Your task to perform on an android device: Open Google Image 0: 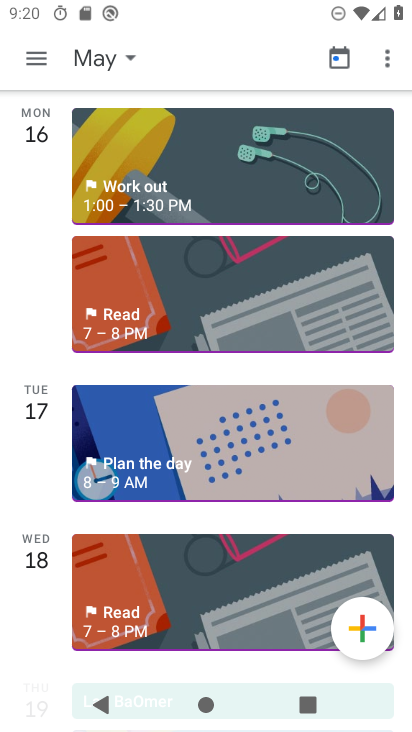
Step 0: press home button
Your task to perform on an android device: Open Google Image 1: 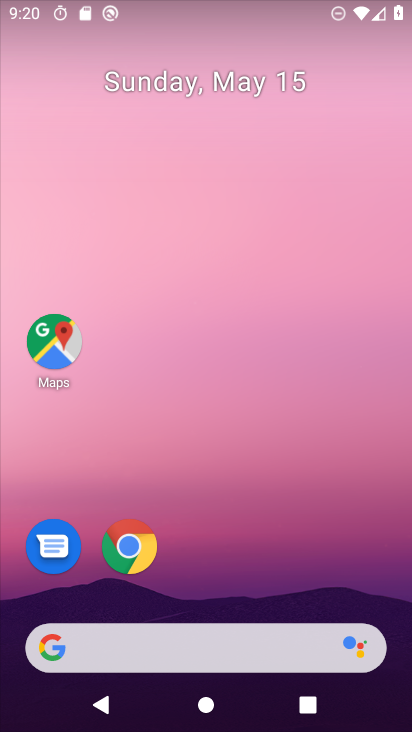
Step 1: drag from (221, 584) to (247, 31)
Your task to perform on an android device: Open Google Image 2: 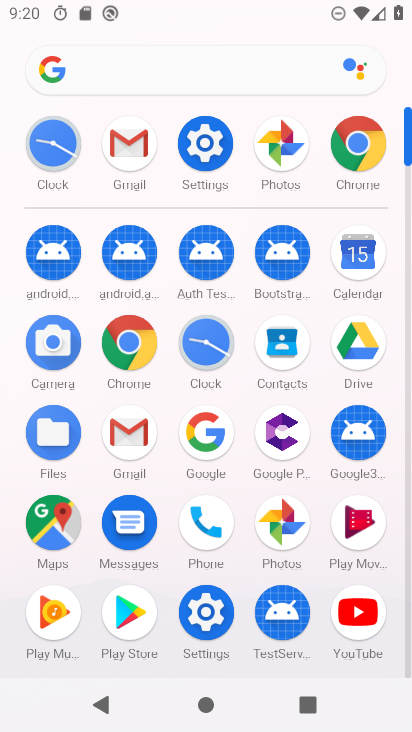
Step 2: click (204, 432)
Your task to perform on an android device: Open Google Image 3: 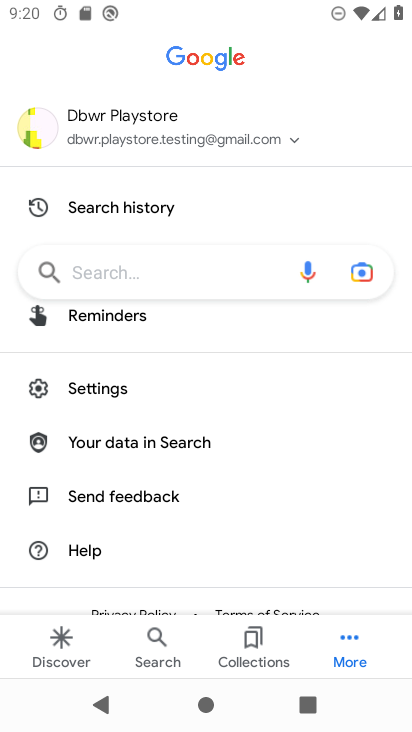
Step 3: click (217, 59)
Your task to perform on an android device: Open Google Image 4: 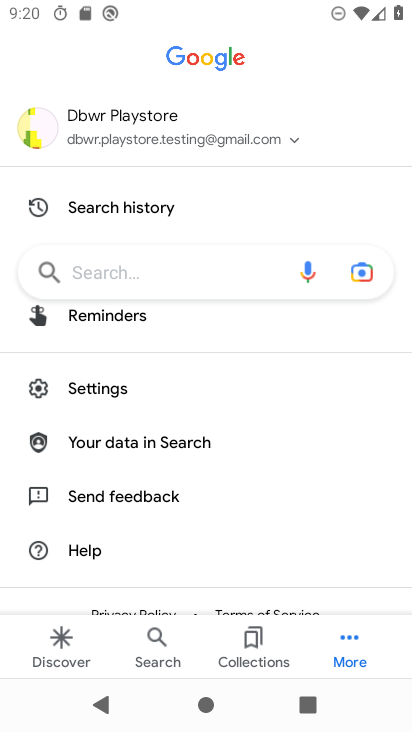
Step 4: task complete